Your task to perform on an android device: toggle improve location accuracy Image 0: 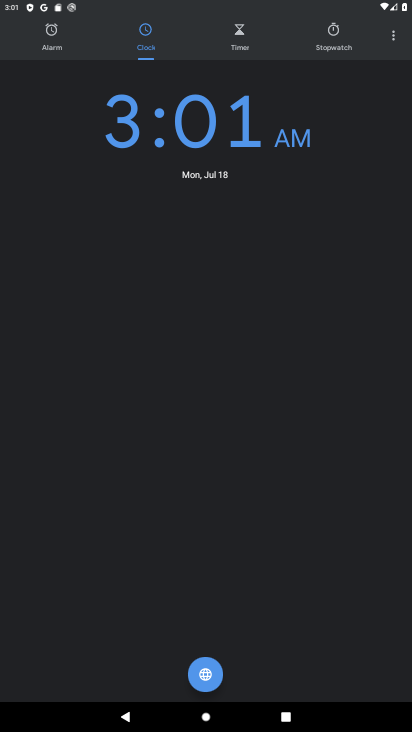
Step 0: press home button
Your task to perform on an android device: toggle improve location accuracy Image 1: 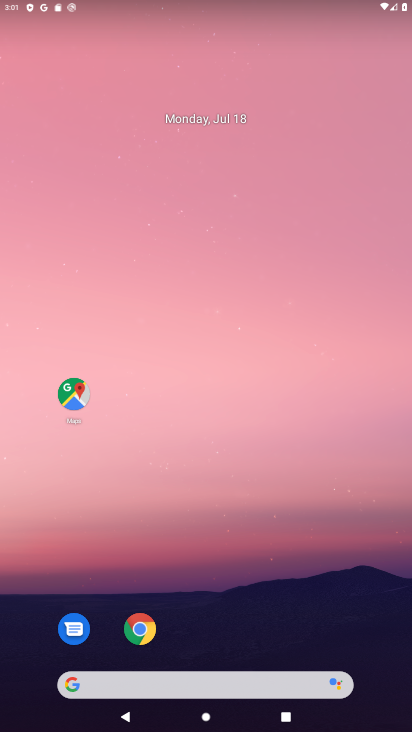
Step 1: drag from (213, 646) to (215, 201)
Your task to perform on an android device: toggle improve location accuracy Image 2: 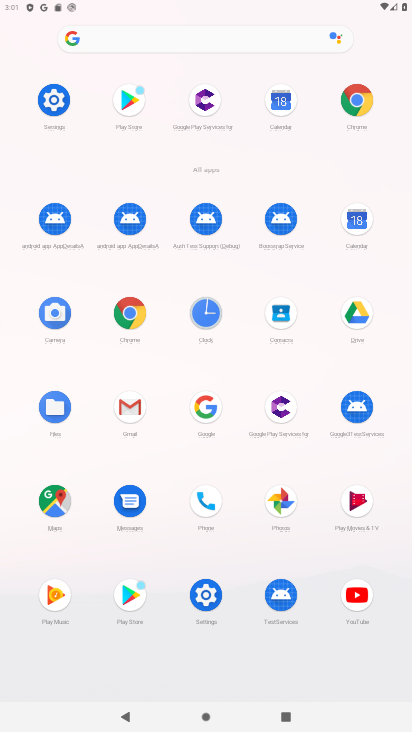
Step 2: click (195, 595)
Your task to perform on an android device: toggle improve location accuracy Image 3: 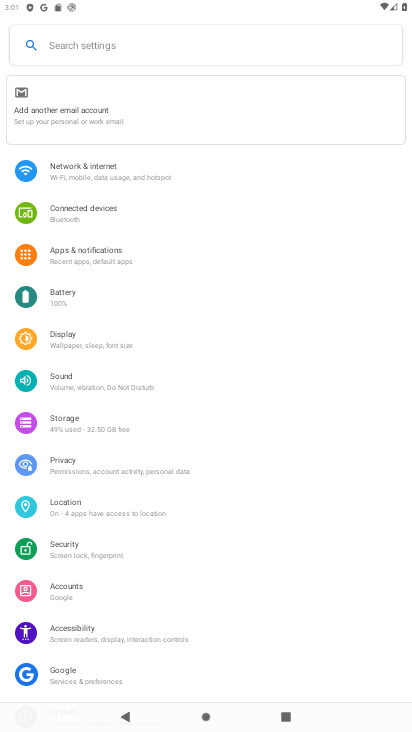
Step 3: click (70, 497)
Your task to perform on an android device: toggle improve location accuracy Image 4: 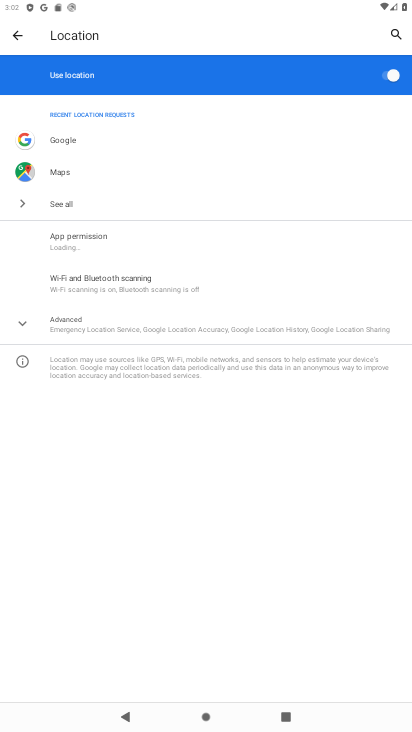
Step 4: click (134, 335)
Your task to perform on an android device: toggle improve location accuracy Image 5: 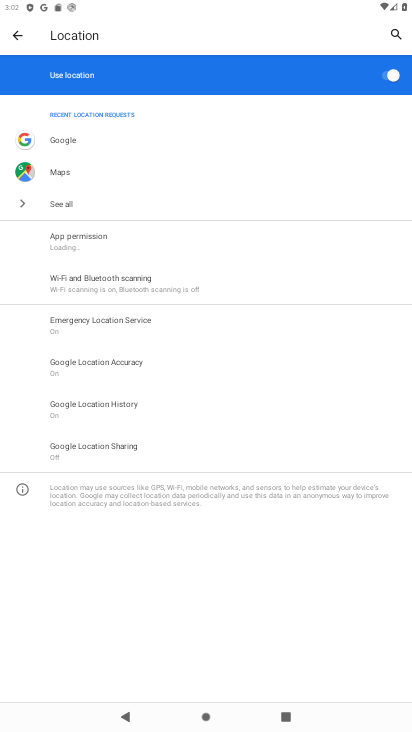
Step 5: click (98, 365)
Your task to perform on an android device: toggle improve location accuracy Image 6: 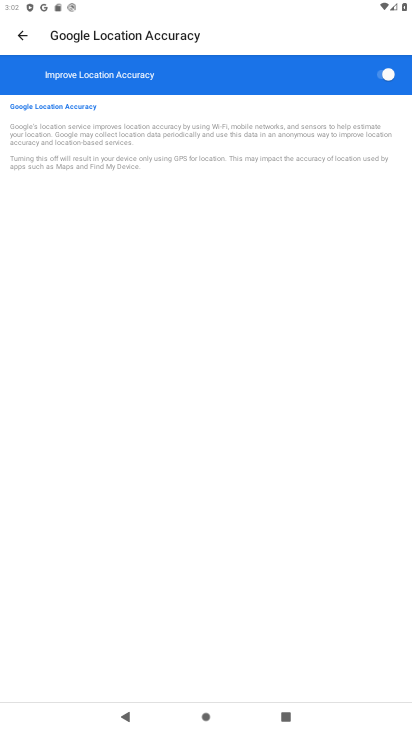
Step 6: click (382, 76)
Your task to perform on an android device: toggle improve location accuracy Image 7: 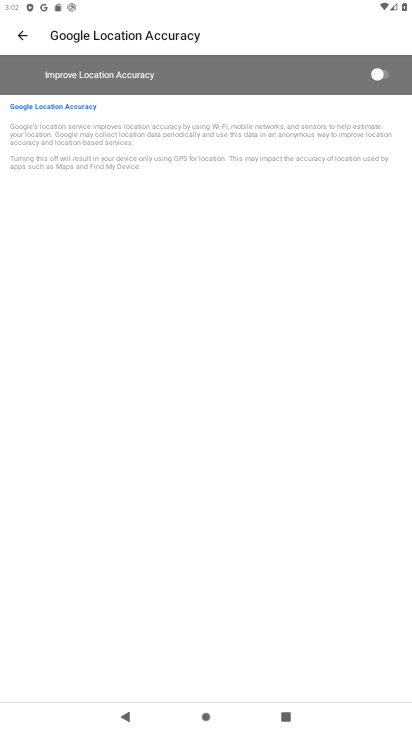
Step 7: task complete